Your task to perform on an android device: Add jbl charge 4 to the cart on ebay Image 0: 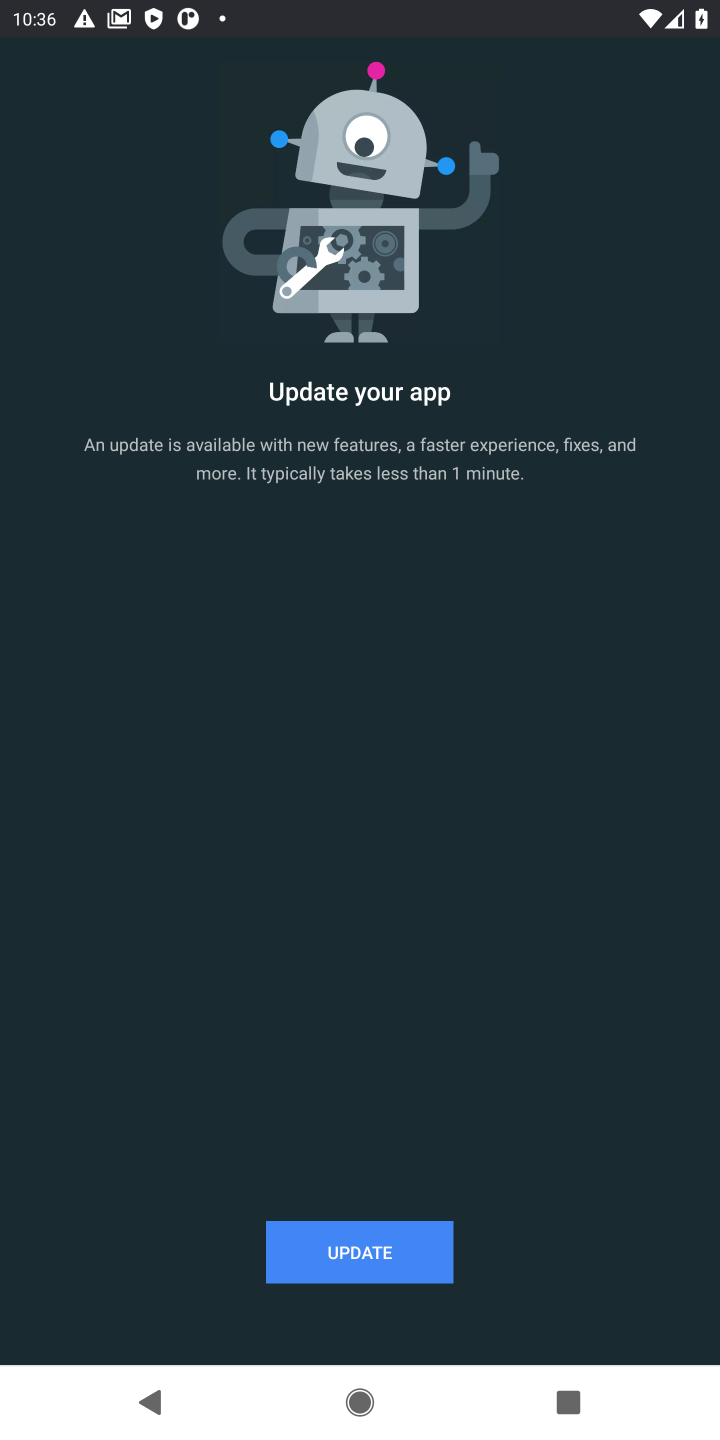
Step 0: press home button
Your task to perform on an android device: Add jbl charge 4 to the cart on ebay Image 1: 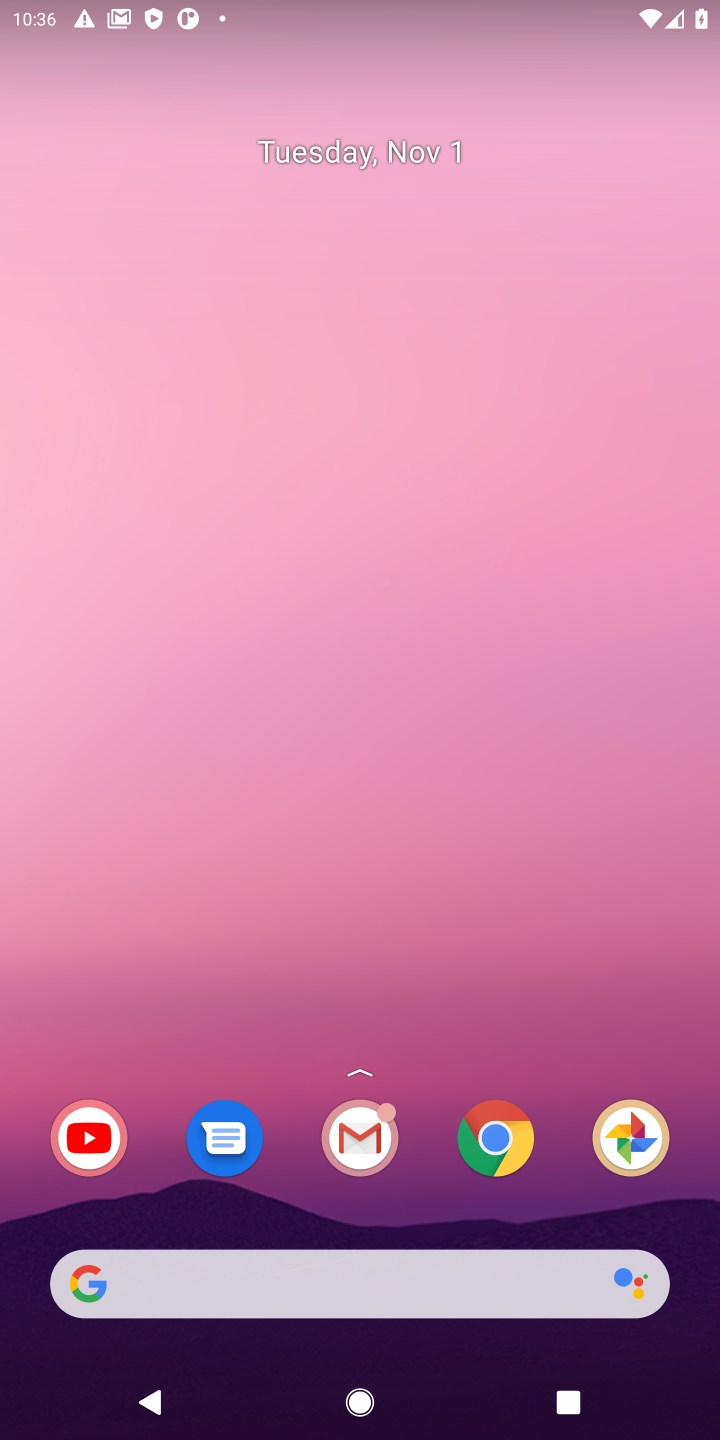
Step 1: click (501, 1129)
Your task to perform on an android device: Add jbl charge 4 to the cart on ebay Image 2: 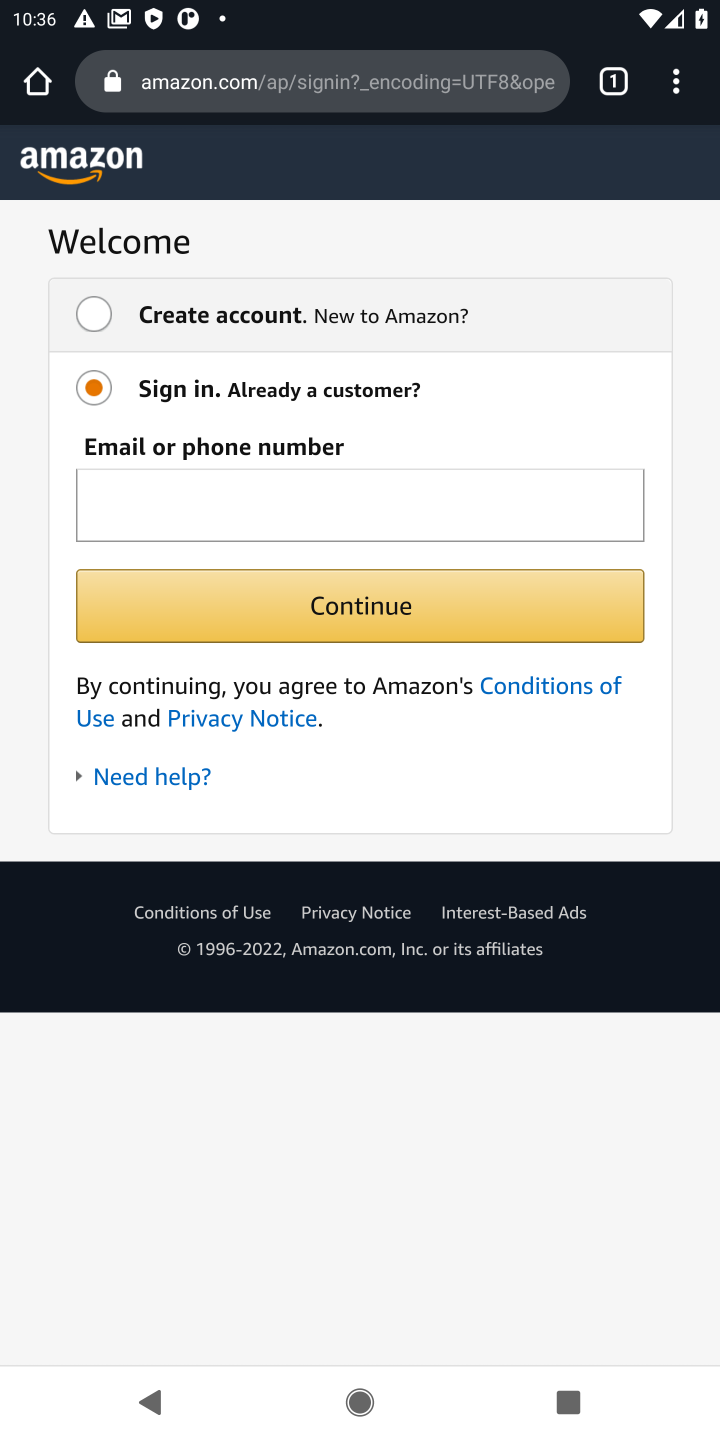
Step 2: click (382, 99)
Your task to perform on an android device: Add jbl charge 4 to the cart on ebay Image 3: 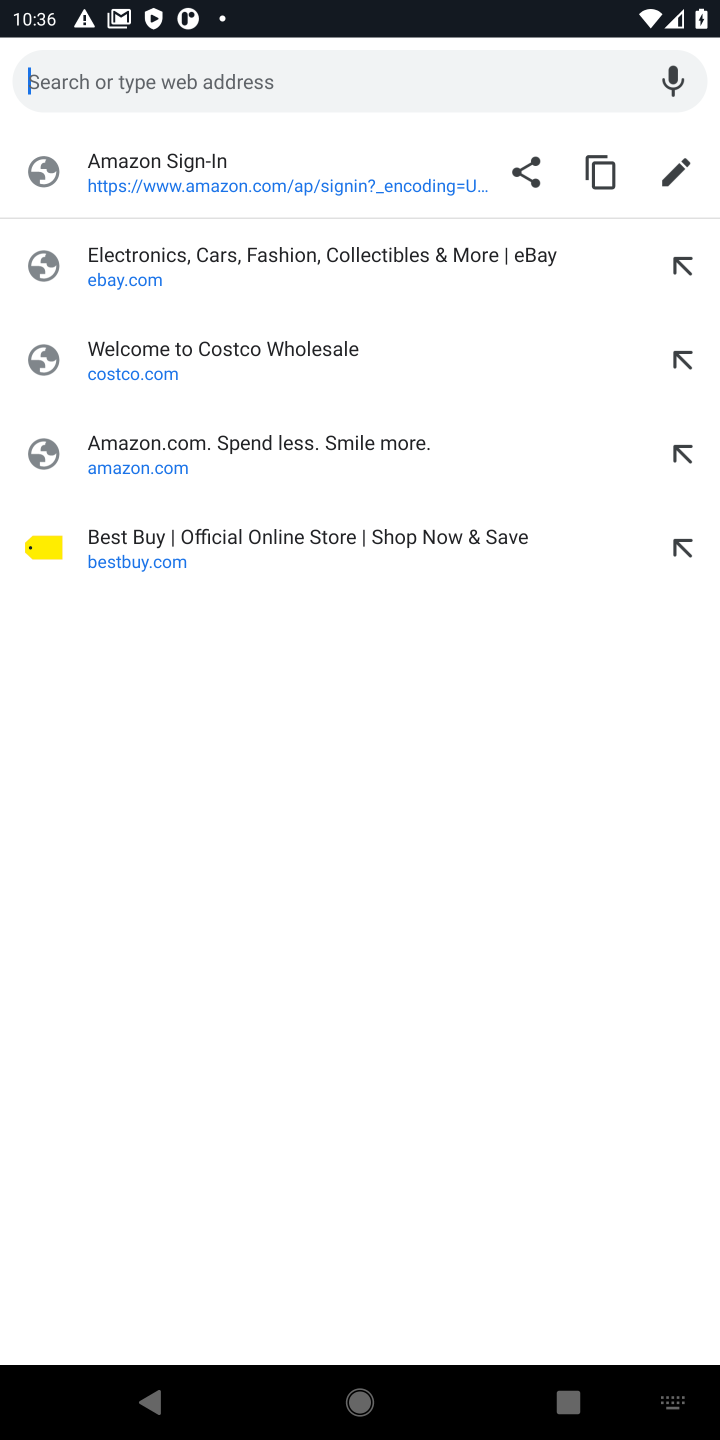
Step 3: click (116, 290)
Your task to perform on an android device: Add jbl charge 4 to the cart on ebay Image 4: 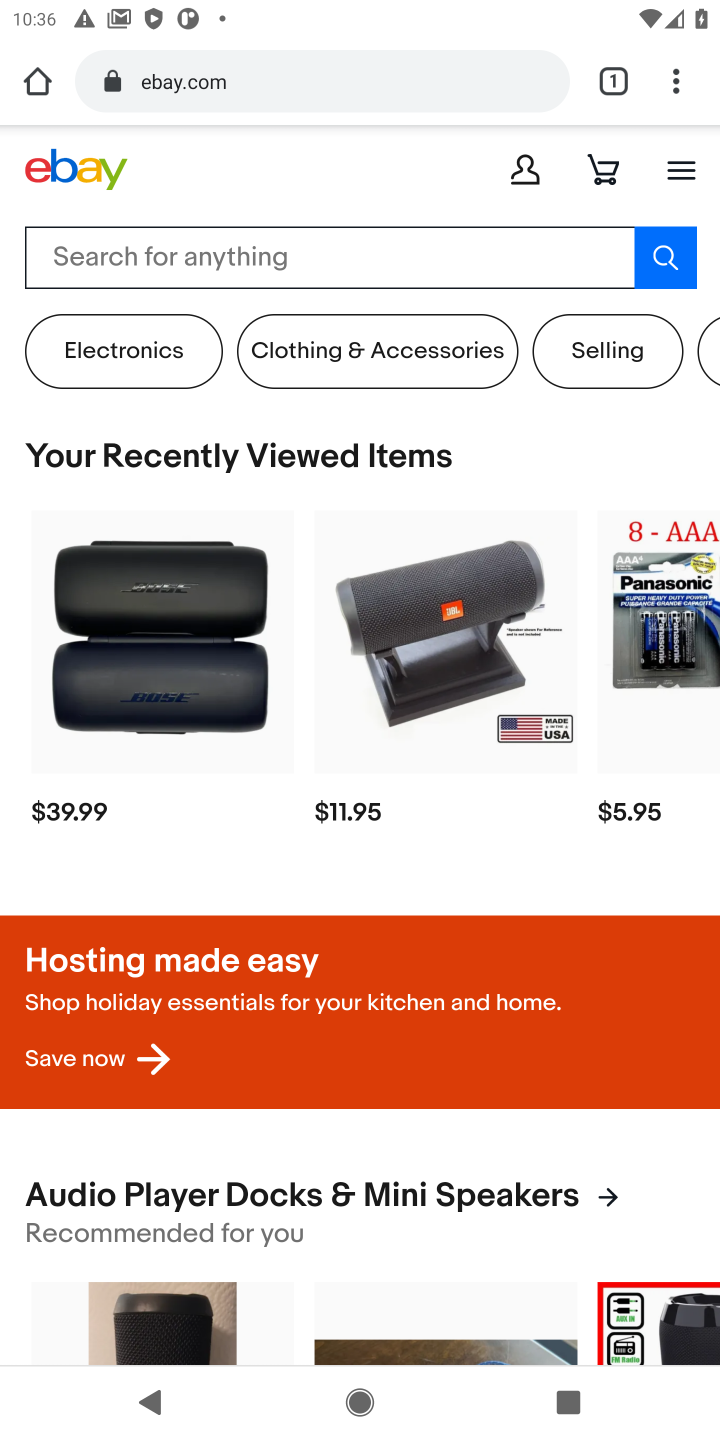
Step 4: click (121, 269)
Your task to perform on an android device: Add jbl charge 4 to the cart on ebay Image 5: 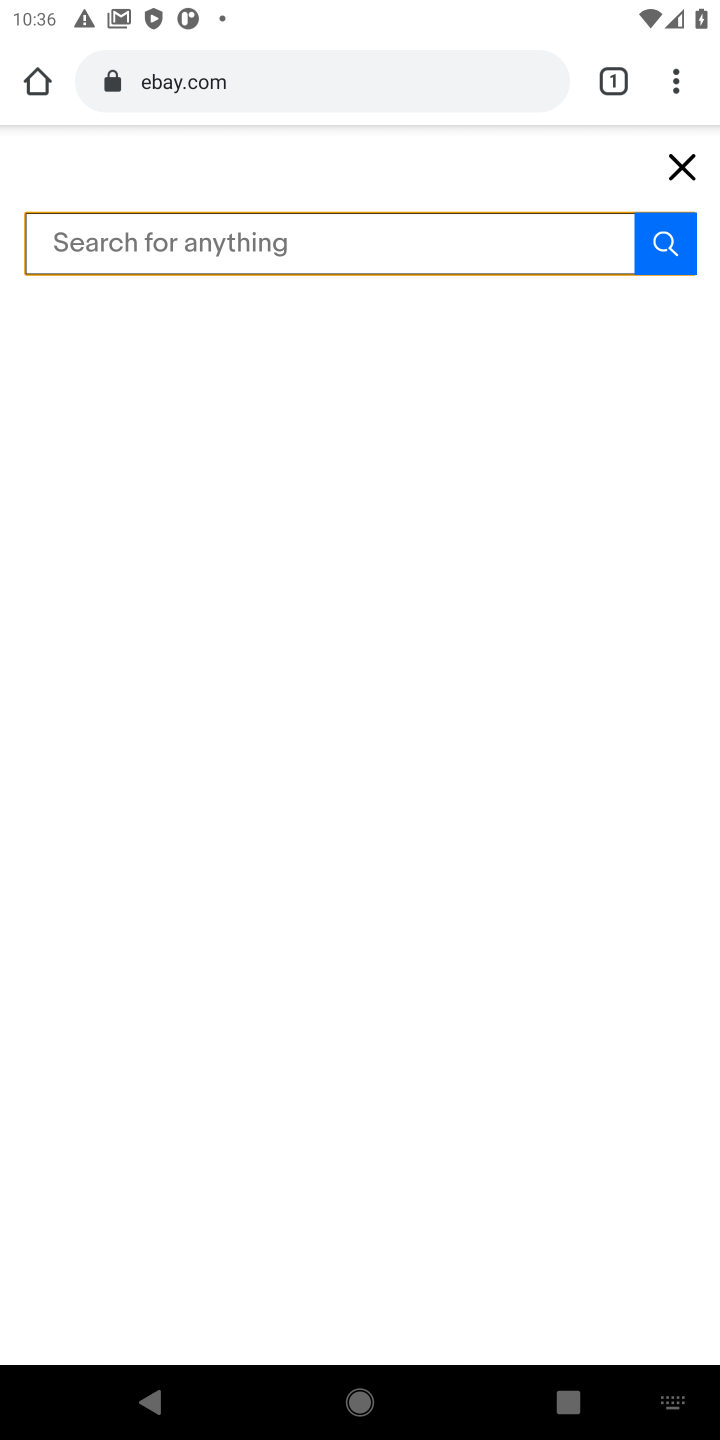
Step 5: type "jbl charge 4 "
Your task to perform on an android device: Add jbl charge 4 to the cart on ebay Image 6: 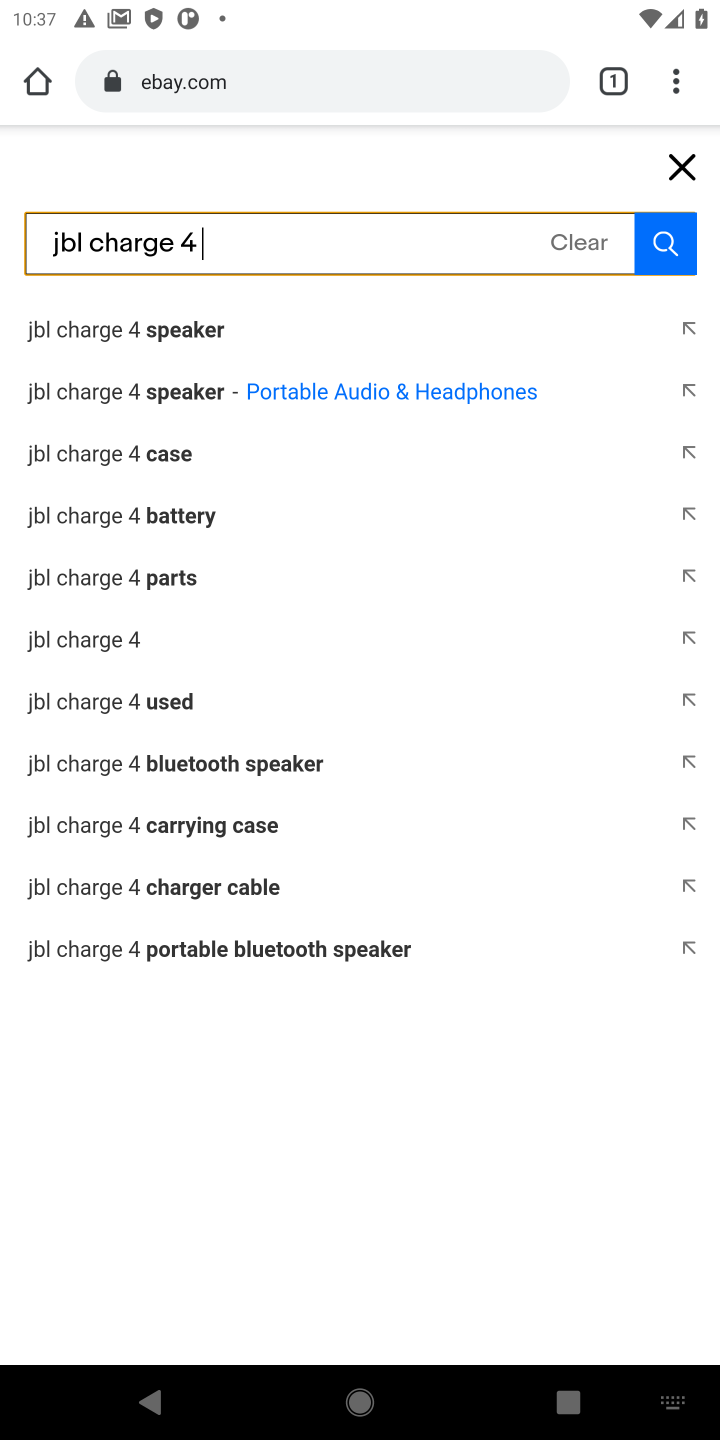
Step 6: click (132, 340)
Your task to perform on an android device: Add jbl charge 4 to the cart on ebay Image 7: 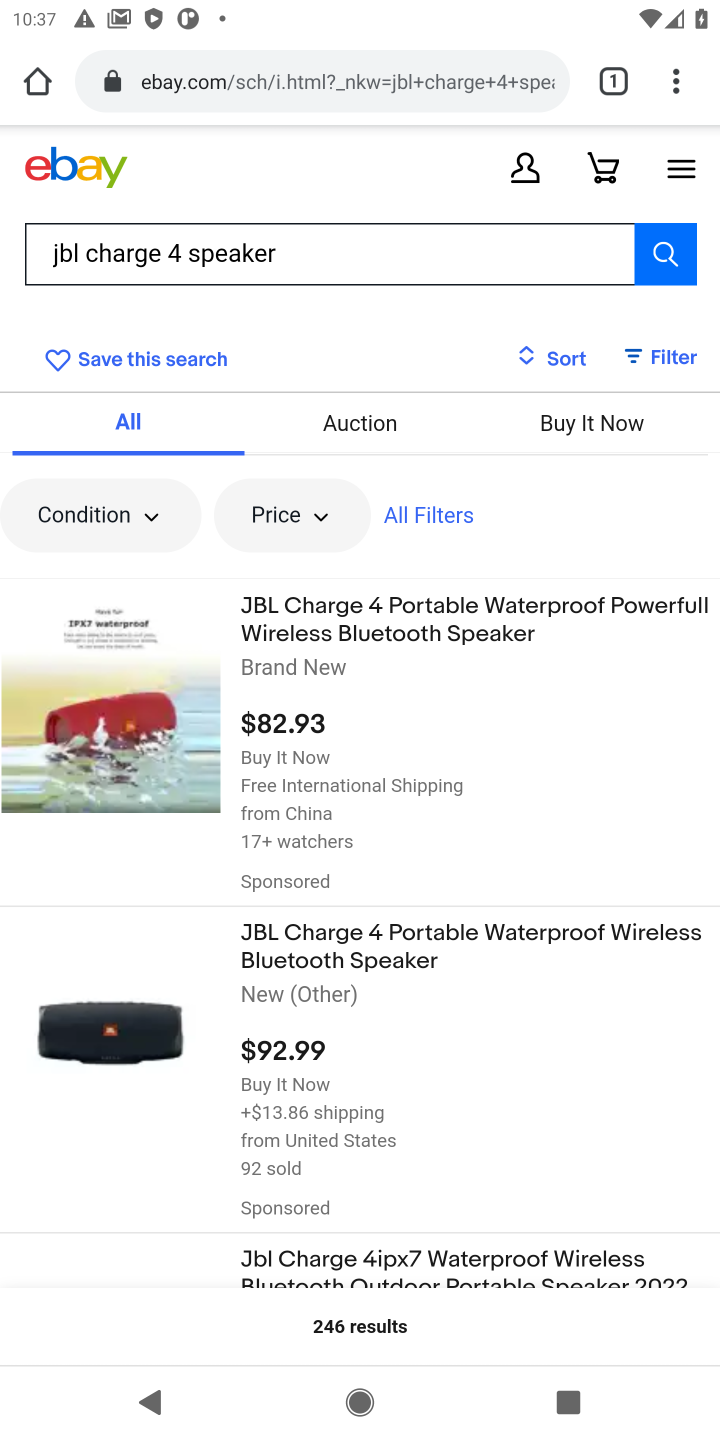
Step 7: click (203, 714)
Your task to perform on an android device: Add jbl charge 4 to the cart on ebay Image 8: 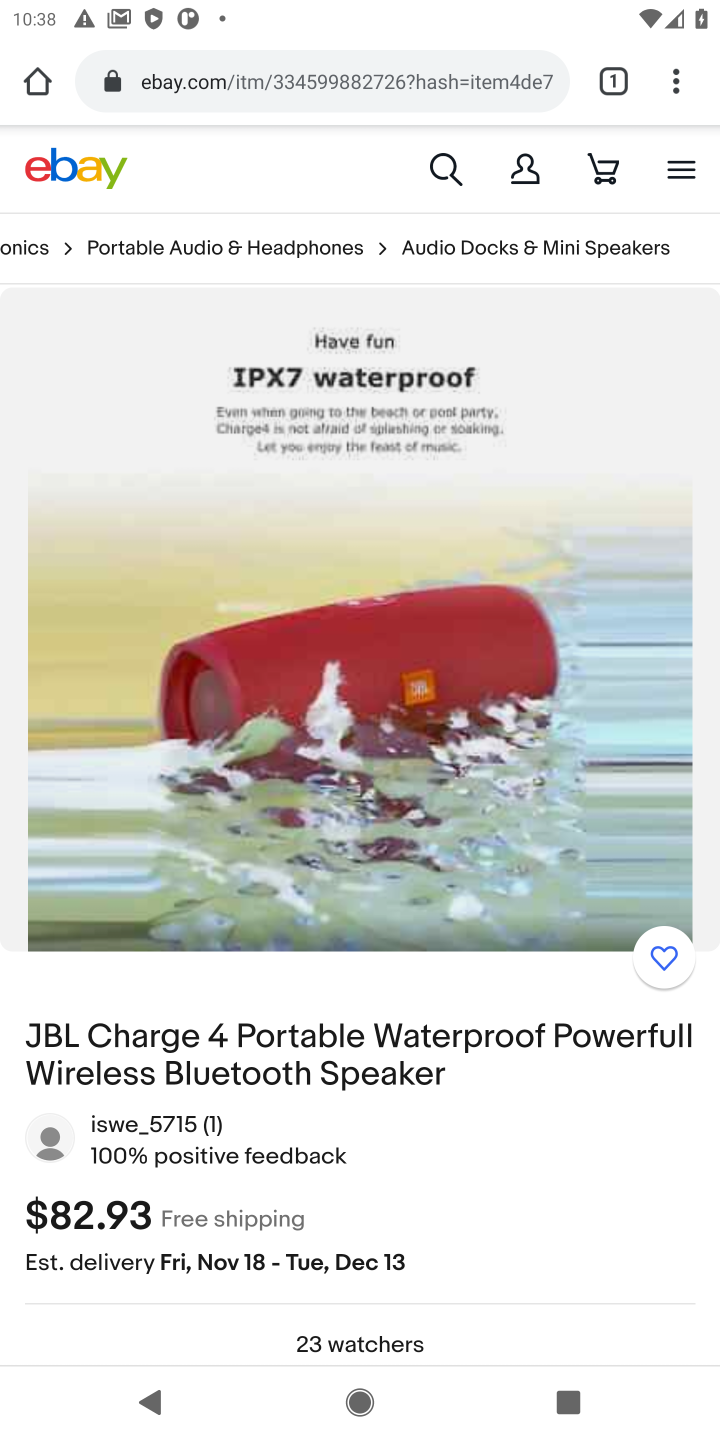
Step 8: drag from (439, 917) to (379, 437)
Your task to perform on an android device: Add jbl charge 4 to the cart on ebay Image 9: 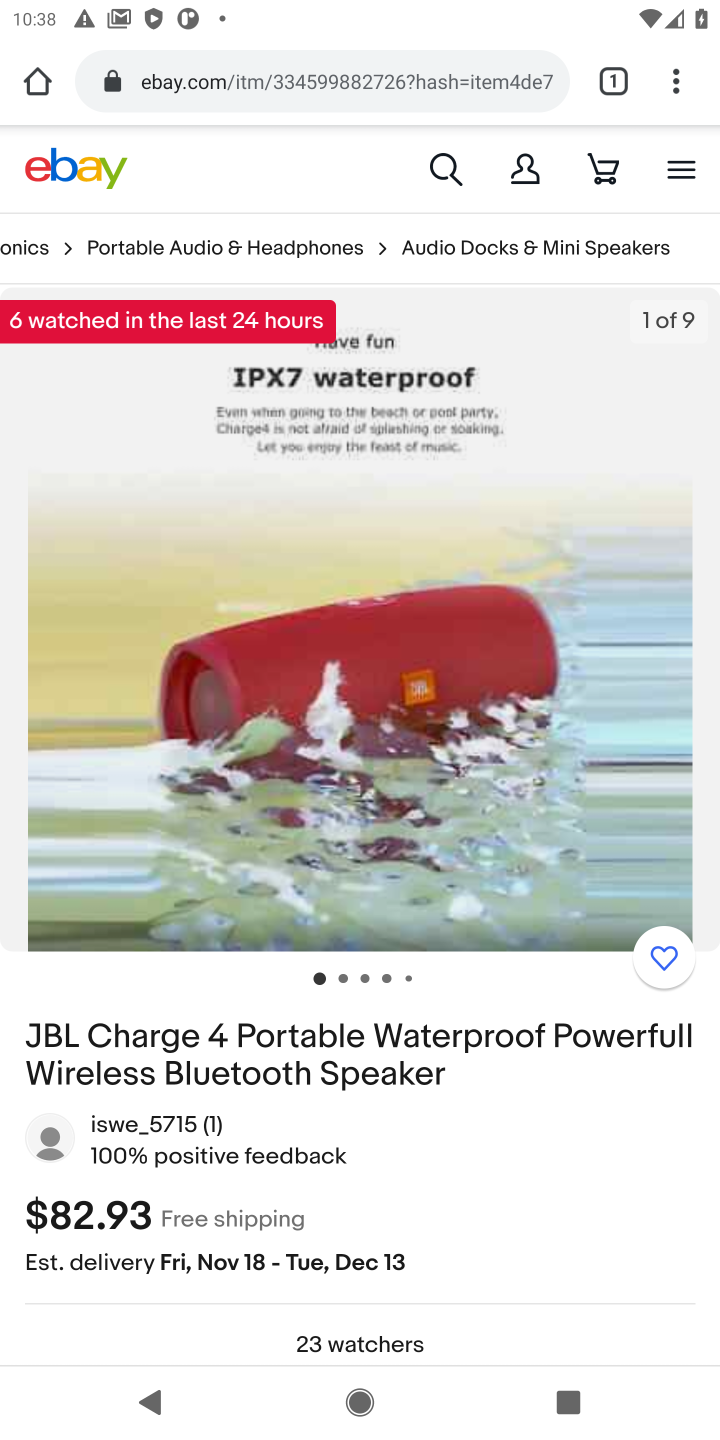
Step 9: drag from (477, 964) to (491, 389)
Your task to perform on an android device: Add jbl charge 4 to the cart on ebay Image 10: 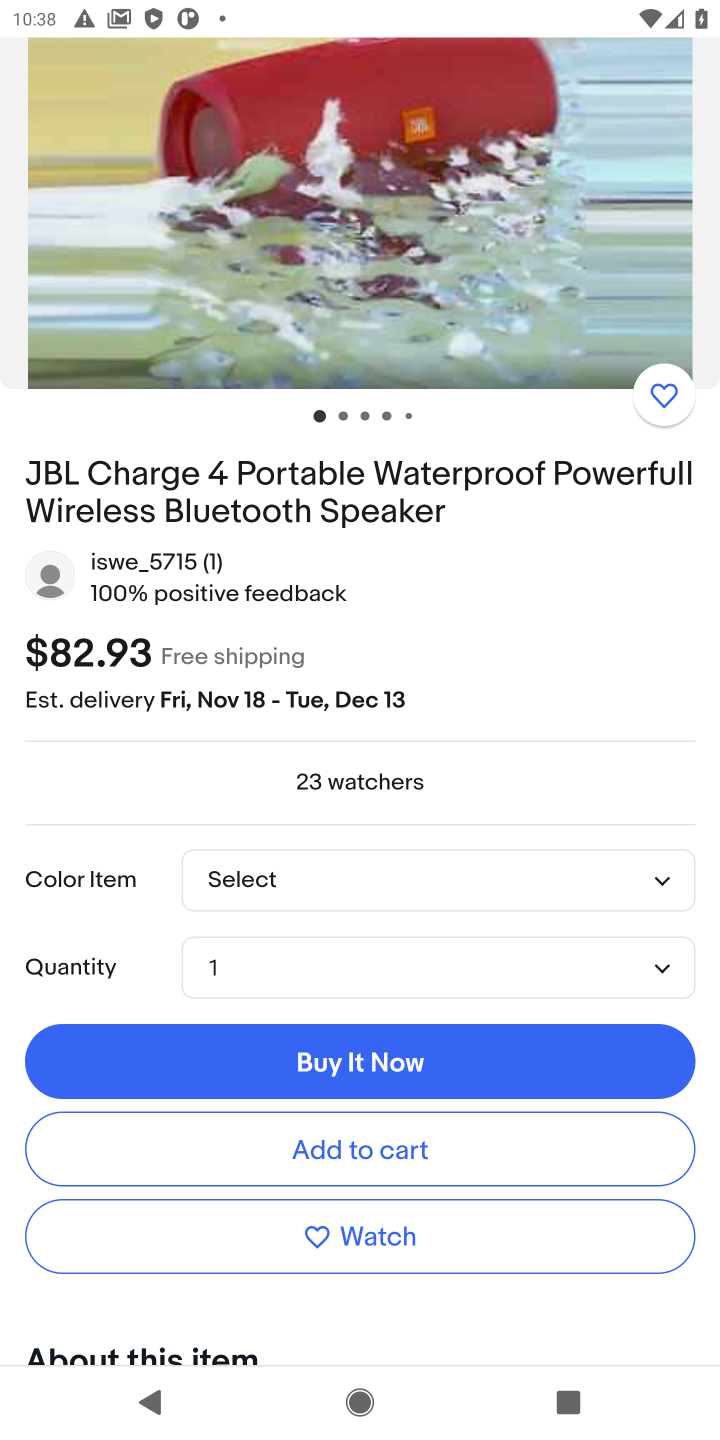
Step 10: click (340, 1144)
Your task to perform on an android device: Add jbl charge 4 to the cart on ebay Image 11: 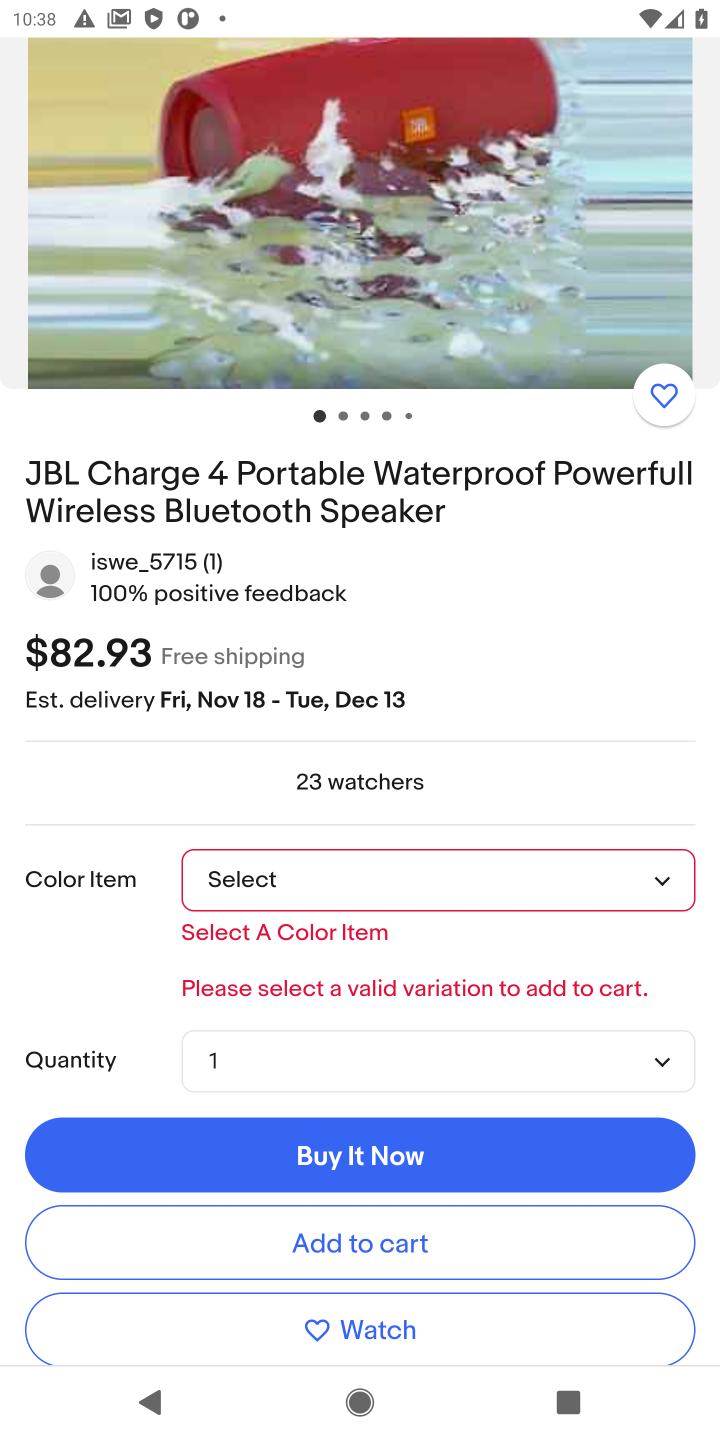
Step 11: click (661, 879)
Your task to perform on an android device: Add jbl charge 4 to the cart on ebay Image 12: 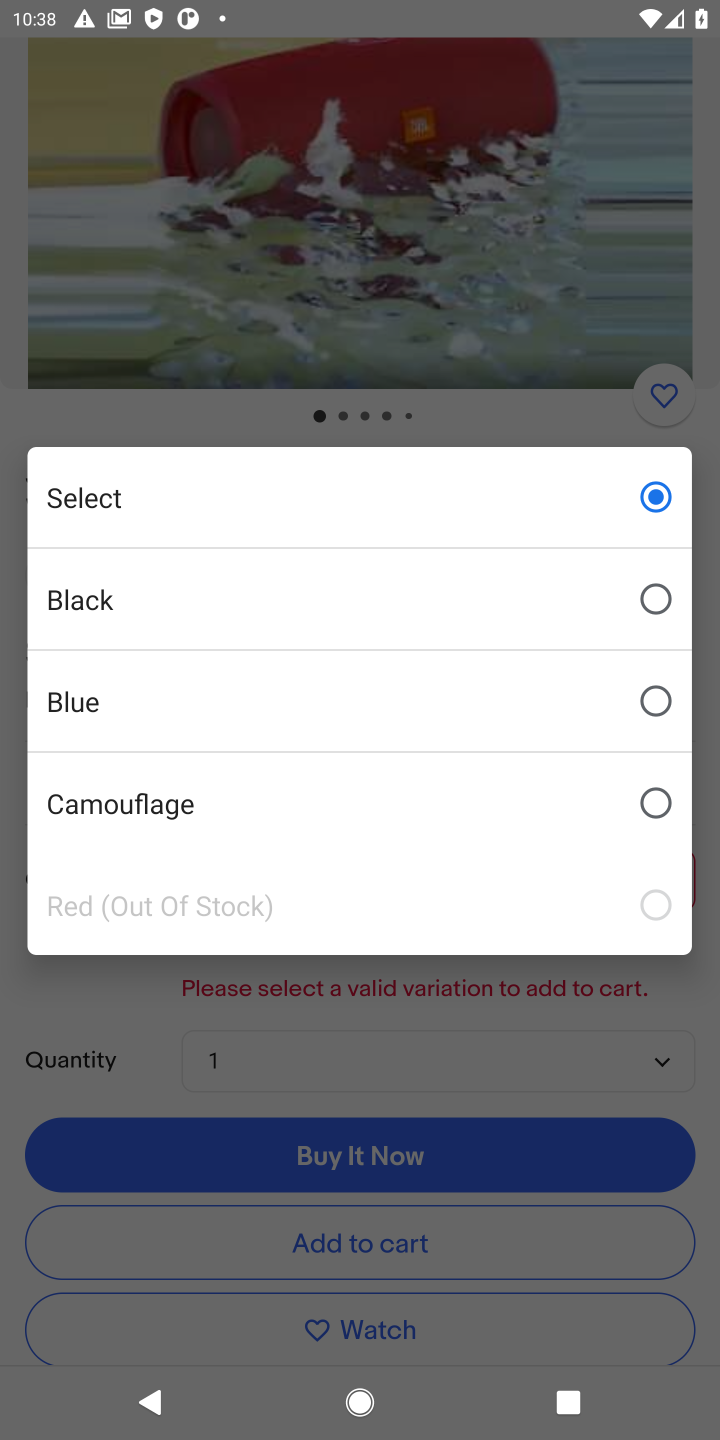
Step 12: click (111, 716)
Your task to perform on an android device: Add jbl charge 4 to the cart on ebay Image 13: 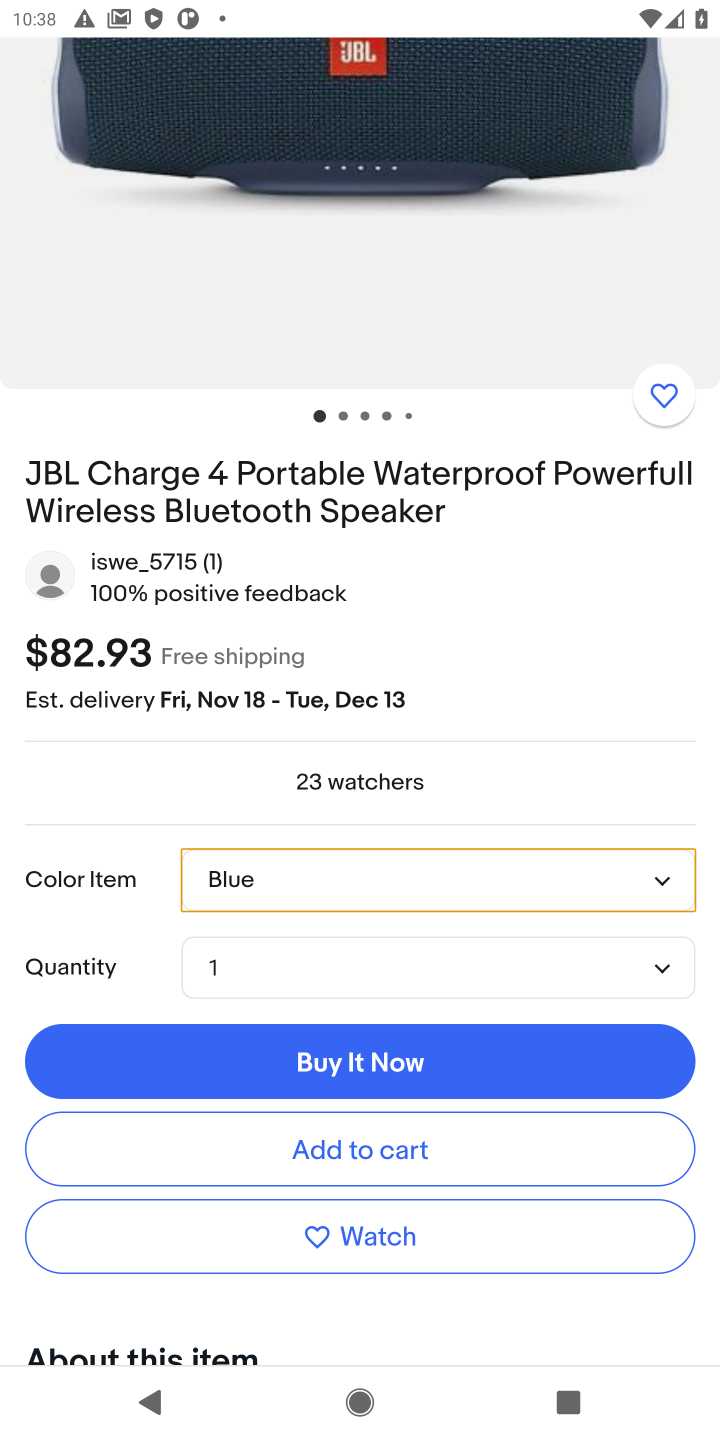
Step 13: click (336, 1141)
Your task to perform on an android device: Add jbl charge 4 to the cart on ebay Image 14: 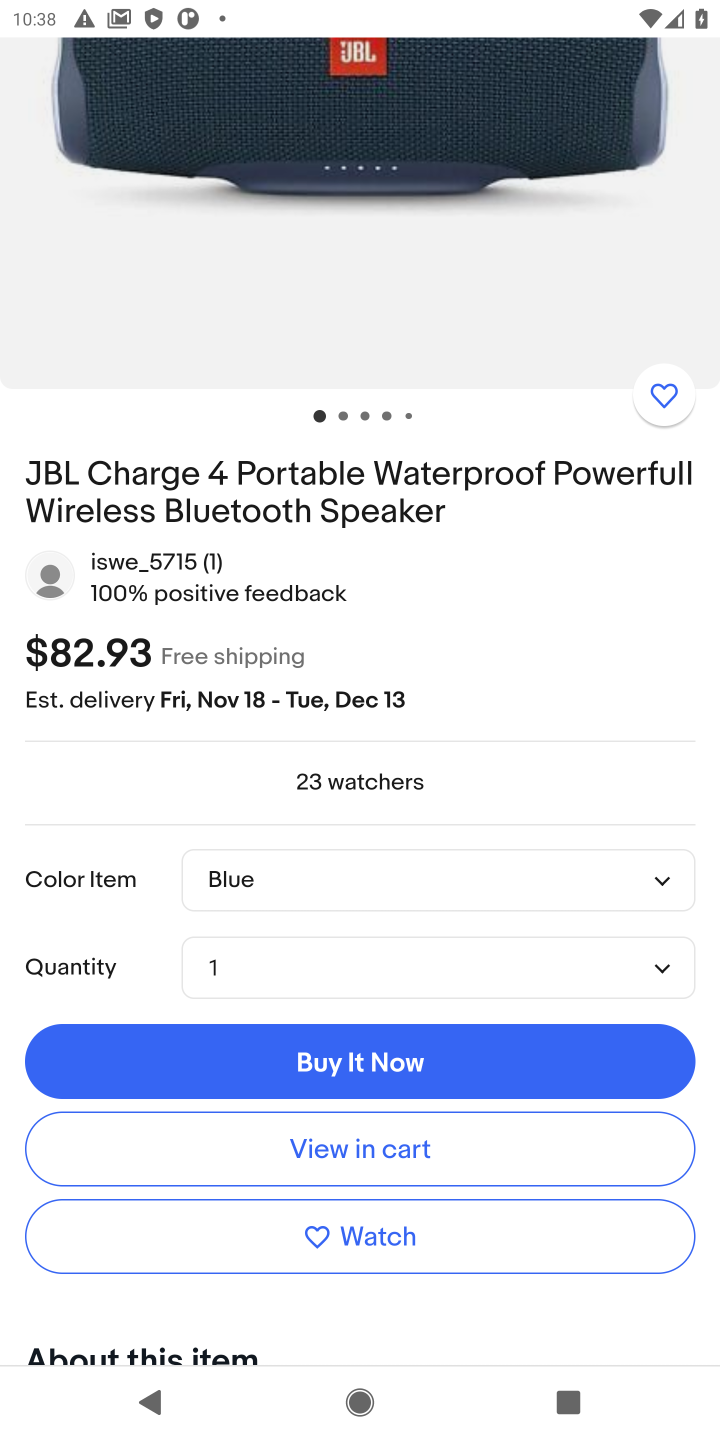
Step 14: task complete